Your task to perform on an android device: check battery use Image 0: 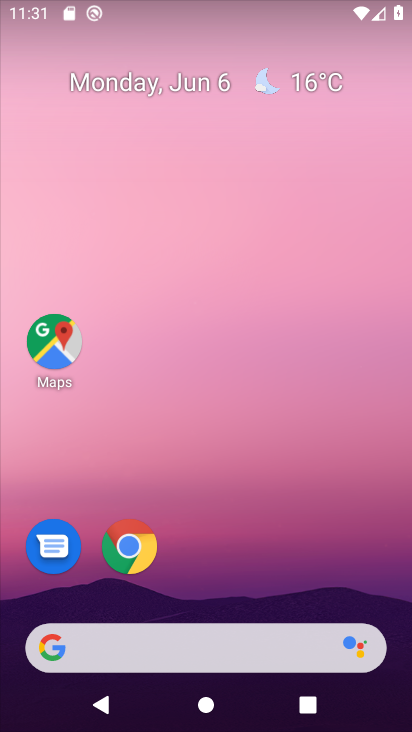
Step 0: drag from (229, 571) to (248, 347)
Your task to perform on an android device: check battery use Image 1: 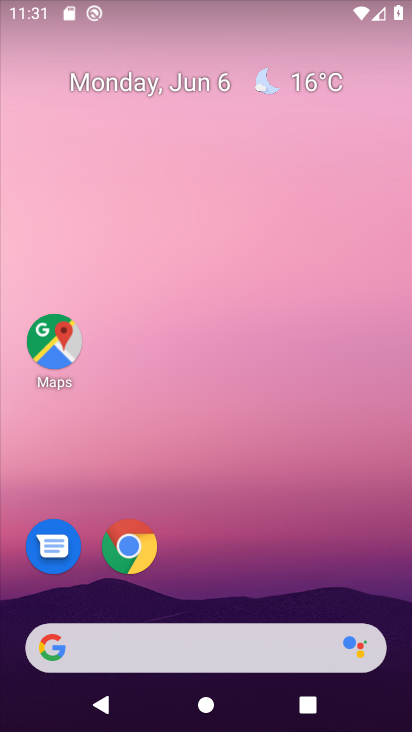
Step 1: drag from (217, 612) to (257, 227)
Your task to perform on an android device: check battery use Image 2: 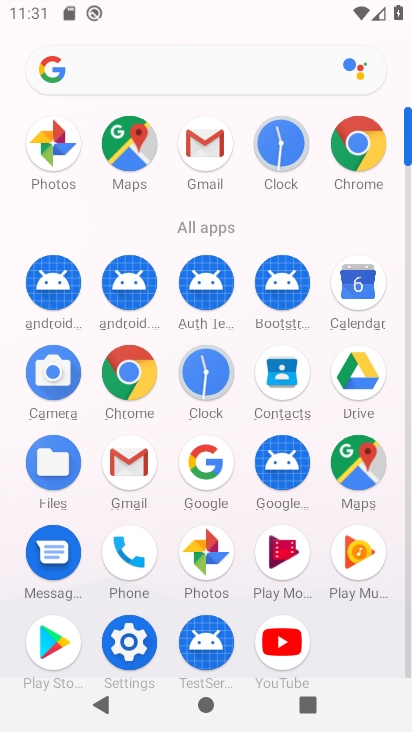
Step 2: click (134, 651)
Your task to perform on an android device: check battery use Image 3: 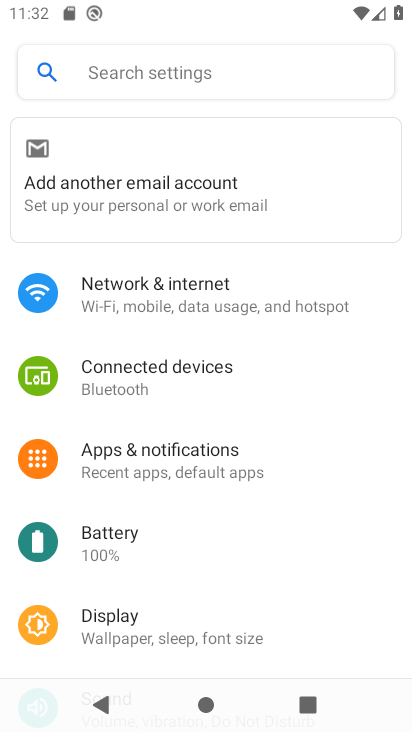
Step 3: click (116, 541)
Your task to perform on an android device: check battery use Image 4: 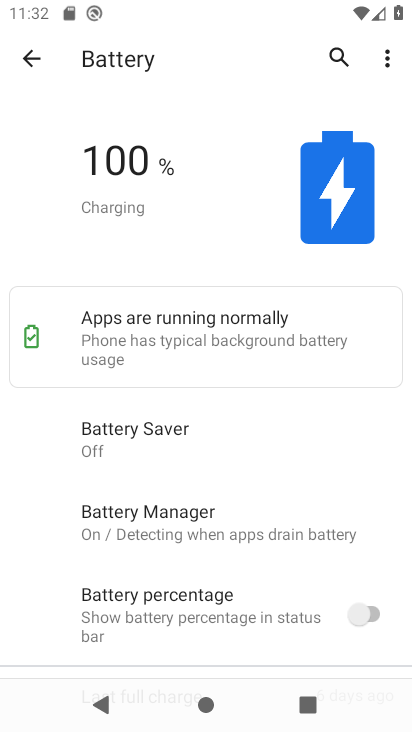
Step 4: click (390, 59)
Your task to perform on an android device: check battery use Image 5: 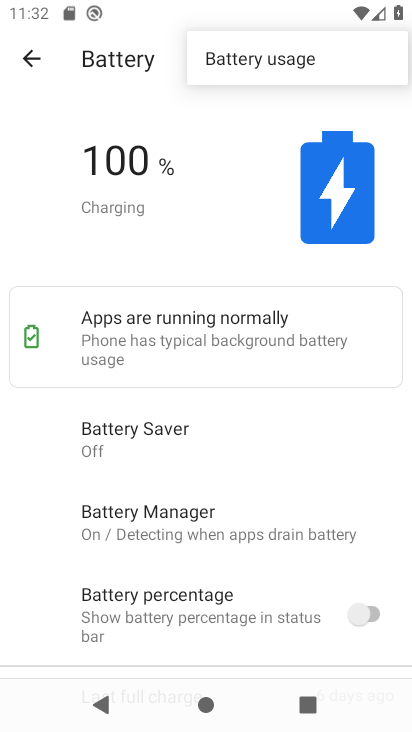
Step 5: click (235, 61)
Your task to perform on an android device: check battery use Image 6: 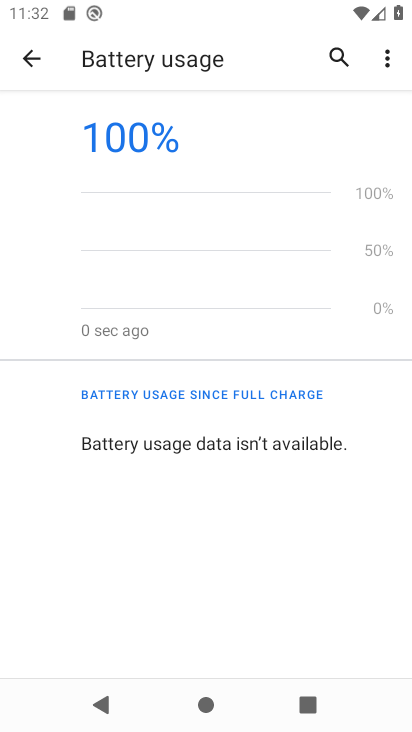
Step 6: task complete